Your task to perform on an android device: Open Yahoo.com Image 0: 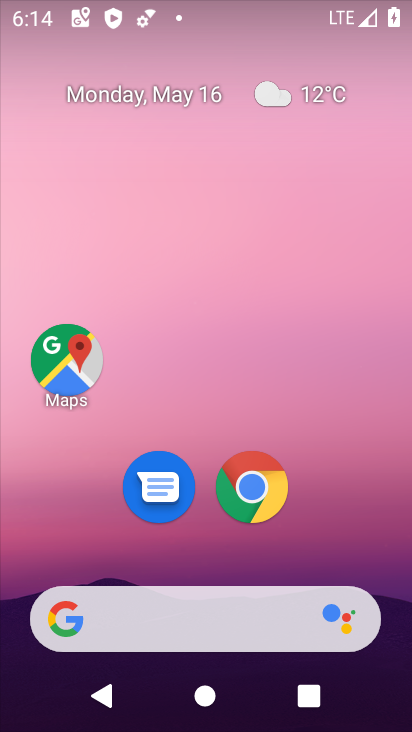
Step 0: click (269, 478)
Your task to perform on an android device: Open Yahoo.com Image 1: 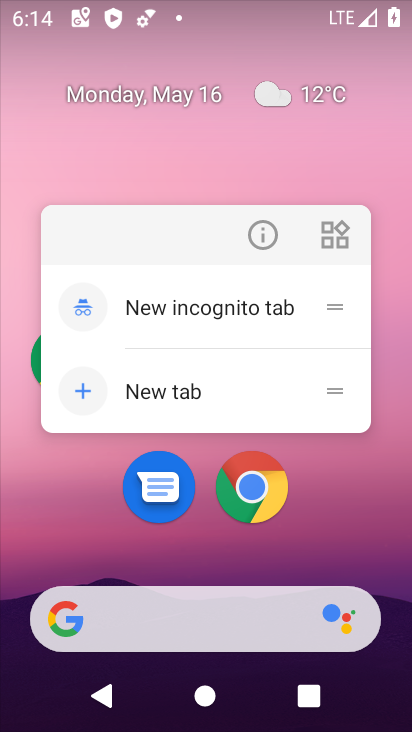
Step 1: click (255, 489)
Your task to perform on an android device: Open Yahoo.com Image 2: 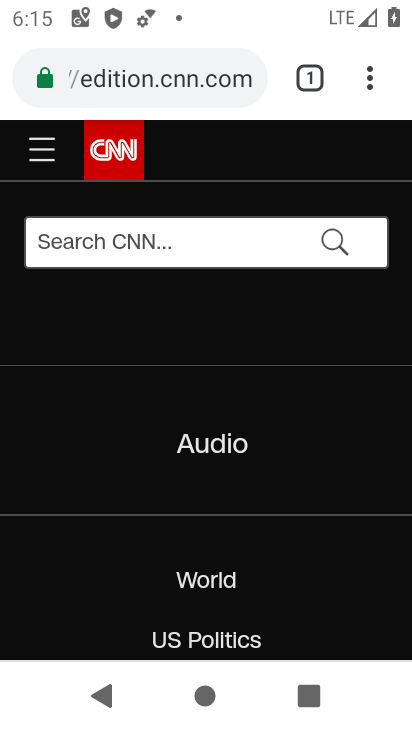
Step 2: click (229, 71)
Your task to perform on an android device: Open Yahoo.com Image 3: 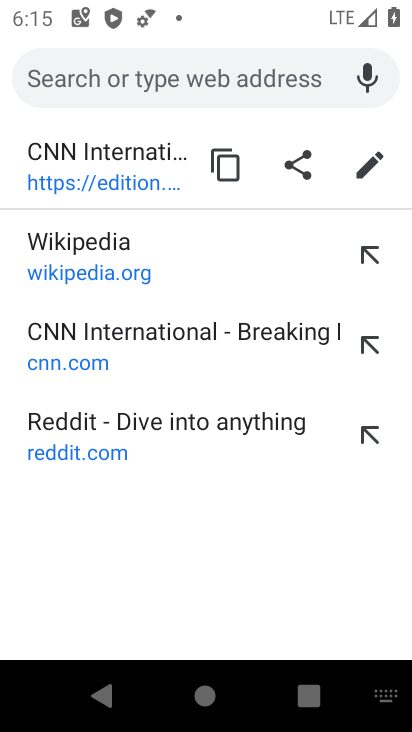
Step 3: type "yahoo.com"
Your task to perform on an android device: Open Yahoo.com Image 4: 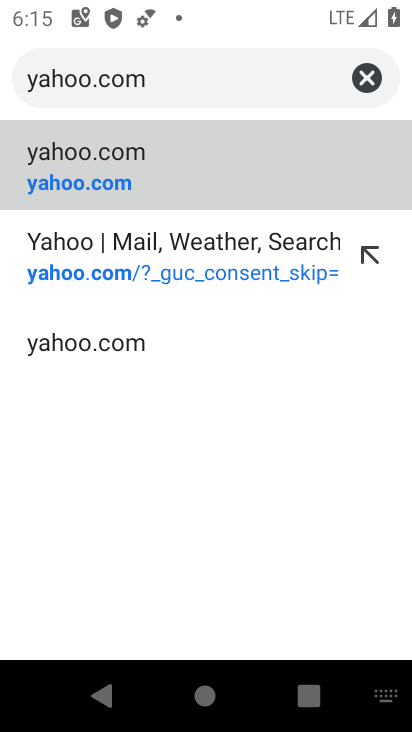
Step 4: click (99, 185)
Your task to perform on an android device: Open Yahoo.com Image 5: 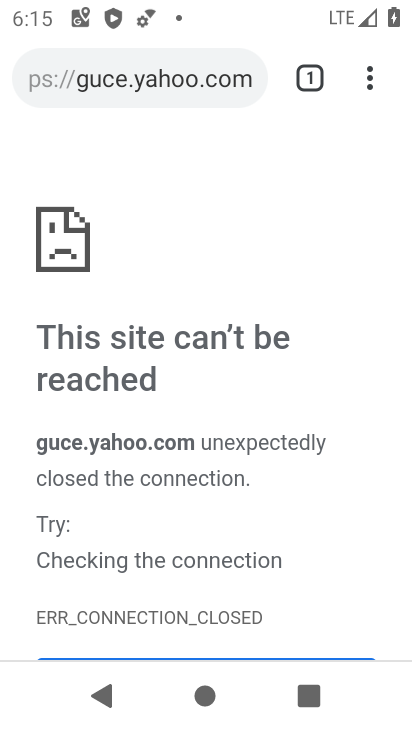
Step 5: click (91, 73)
Your task to perform on an android device: Open Yahoo.com Image 6: 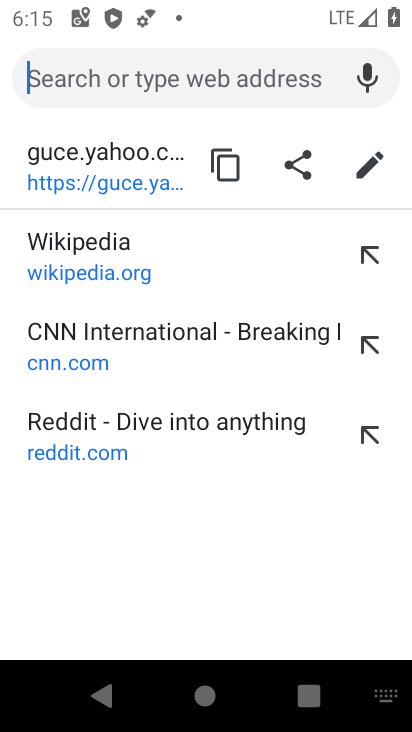
Step 6: type "yahoo.com"
Your task to perform on an android device: Open Yahoo.com Image 7: 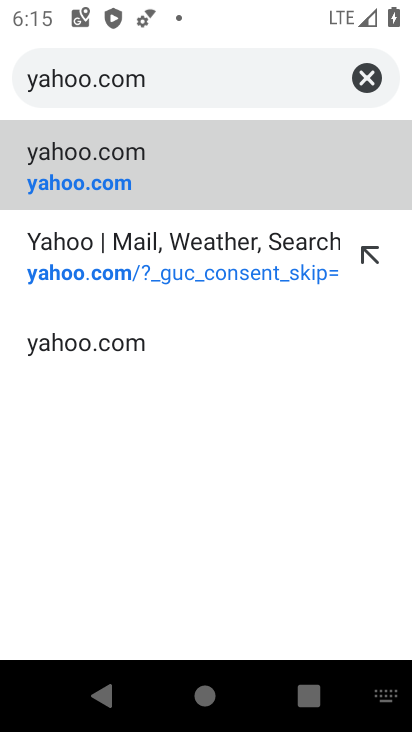
Step 7: click (94, 191)
Your task to perform on an android device: Open Yahoo.com Image 8: 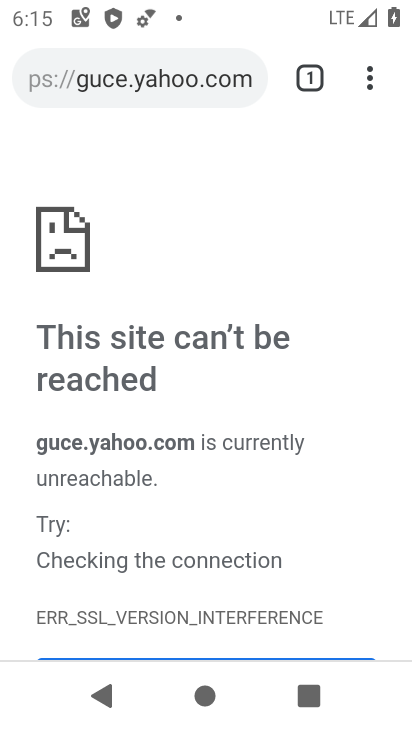
Step 8: task complete